Your task to perform on an android device: show emergency info Image 0: 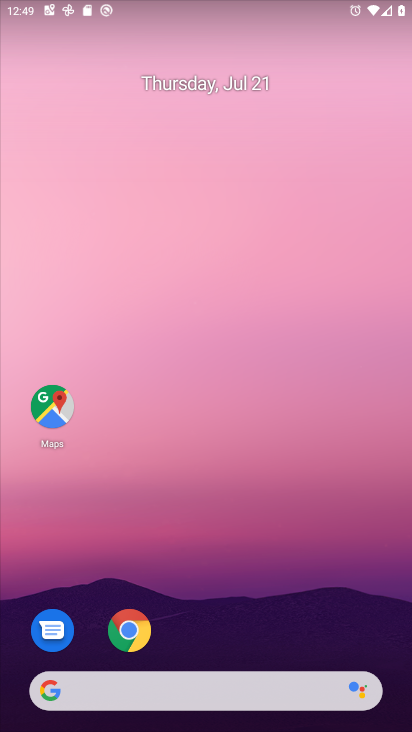
Step 0: drag from (217, 625) to (399, 122)
Your task to perform on an android device: show emergency info Image 1: 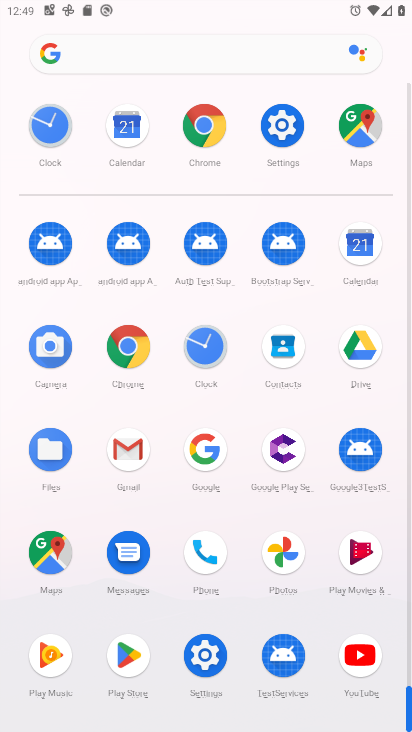
Step 1: click (208, 658)
Your task to perform on an android device: show emergency info Image 2: 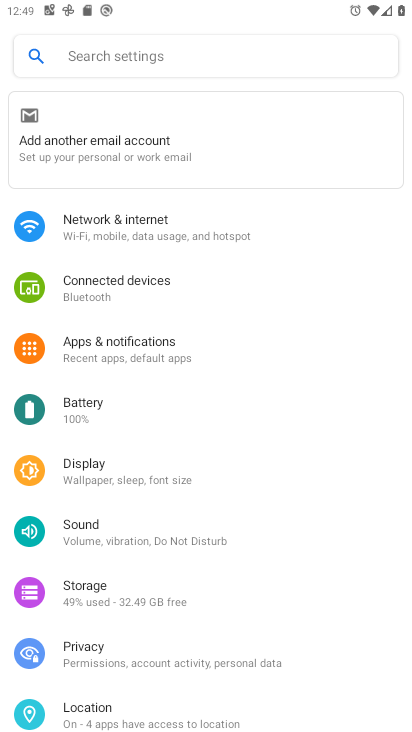
Step 2: drag from (153, 619) to (410, 267)
Your task to perform on an android device: show emergency info Image 3: 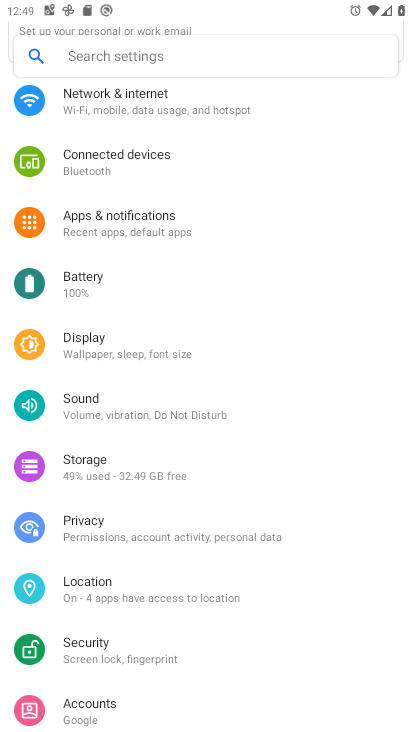
Step 3: drag from (157, 623) to (197, 250)
Your task to perform on an android device: show emergency info Image 4: 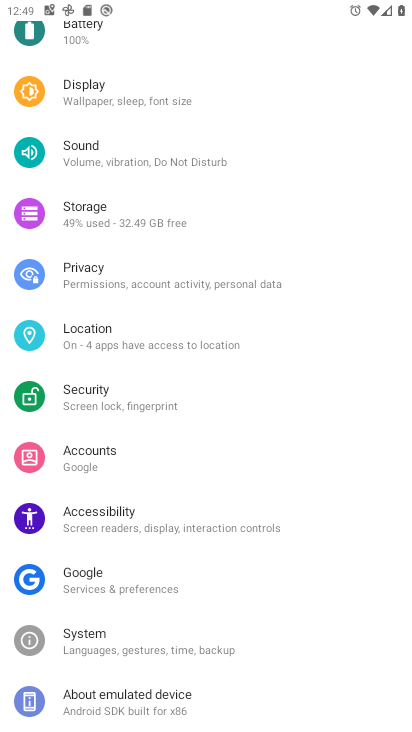
Step 4: click (169, 710)
Your task to perform on an android device: show emergency info Image 5: 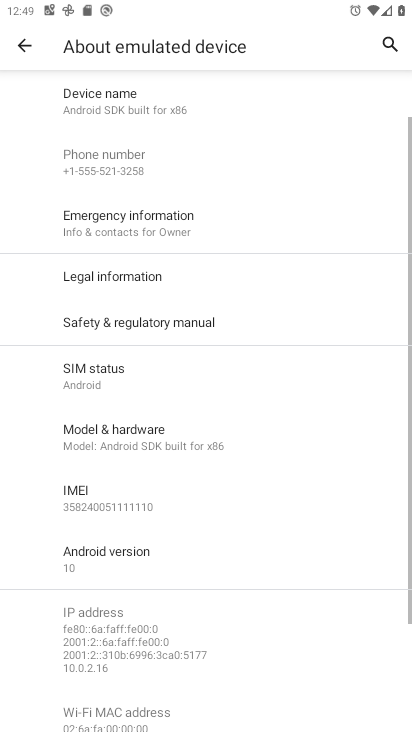
Step 5: click (153, 220)
Your task to perform on an android device: show emergency info Image 6: 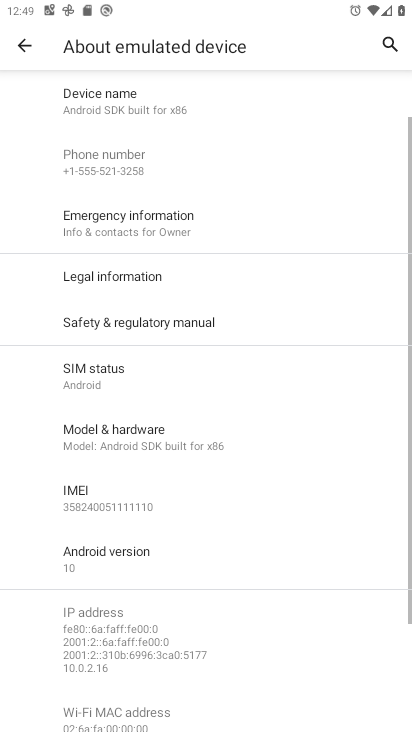
Step 6: click (153, 220)
Your task to perform on an android device: show emergency info Image 7: 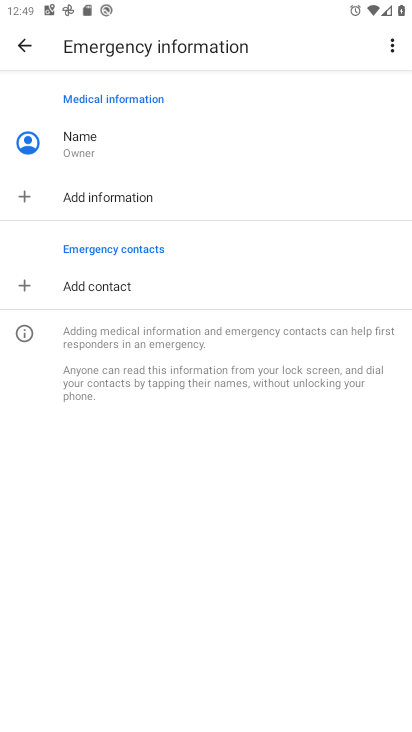
Step 7: task complete